Your task to perform on an android device: toggle pop-ups in chrome Image 0: 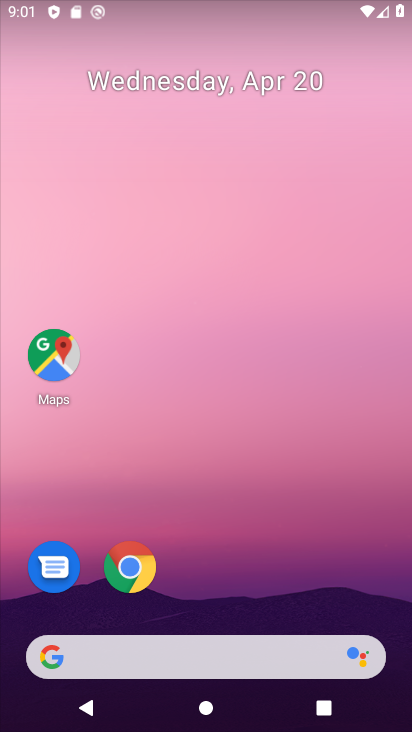
Step 0: click (124, 571)
Your task to perform on an android device: toggle pop-ups in chrome Image 1: 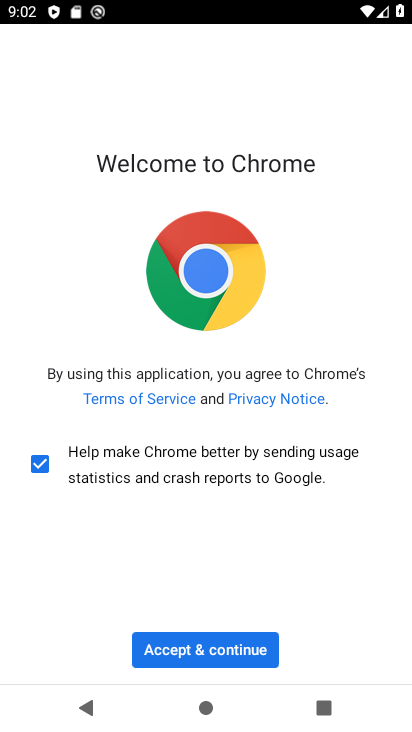
Step 1: click (242, 634)
Your task to perform on an android device: toggle pop-ups in chrome Image 2: 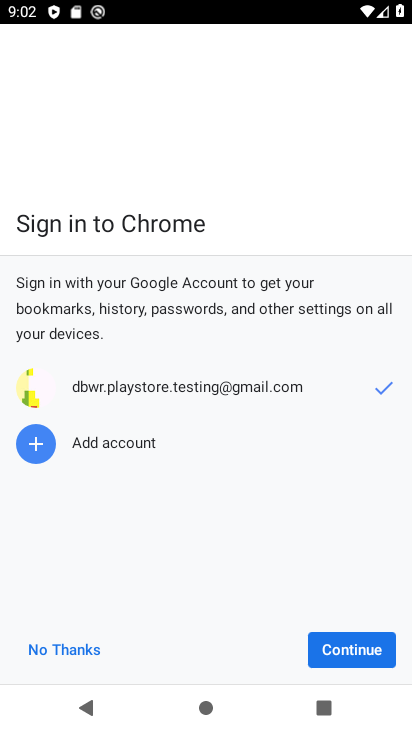
Step 2: click (376, 648)
Your task to perform on an android device: toggle pop-ups in chrome Image 3: 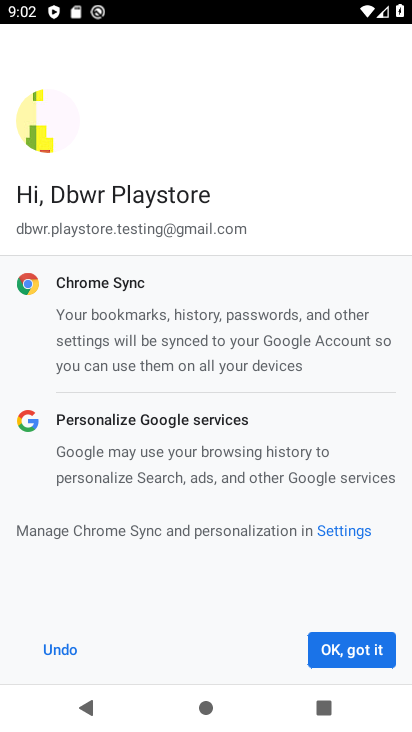
Step 3: click (369, 653)
Your task to perform on an android device: toggle pop-ups in chrome Image 4: 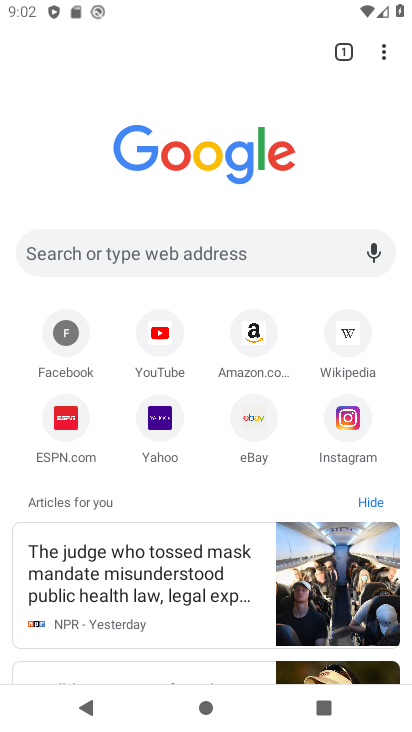
Step 4: drag from (388, 39) to (233, 427)
Your task to perform on an android device: toggle pop-ups in chrome Image 5: 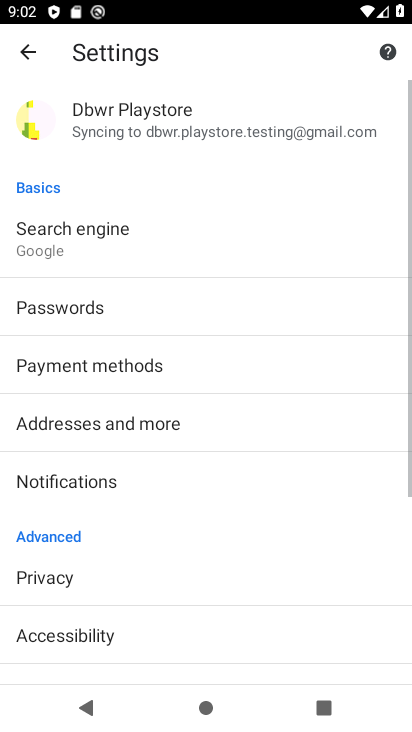
Step 5: drag from (101, 637) to (279, 42)
Your task to perform on an android device: toggle pop-ups in chrome Image 6: 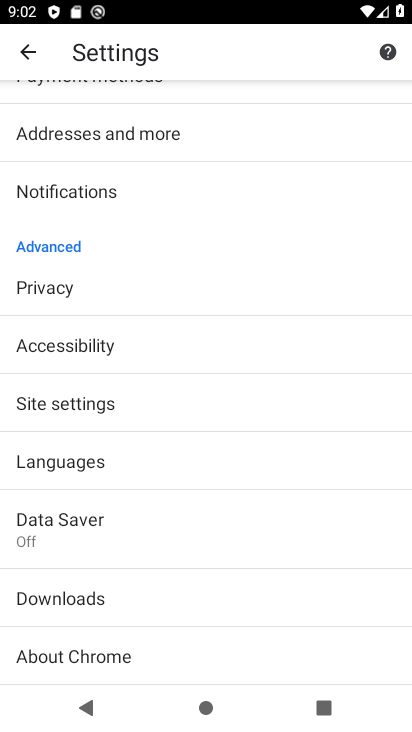
Step 6: click (79, 407)
Your task to perform on an android device: toggle pop-ups in chrome Image 7: 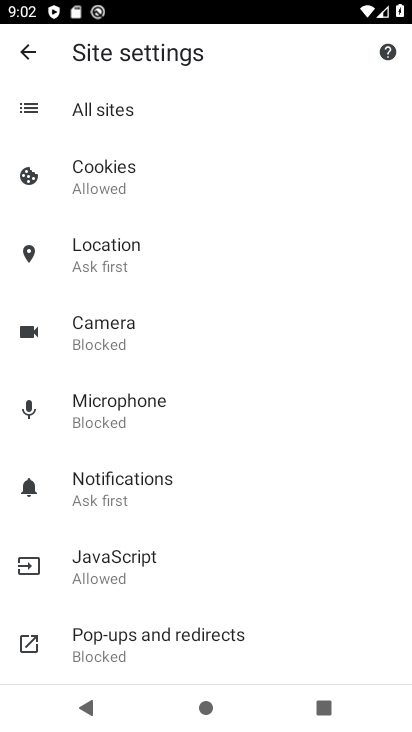
Step 7: click (186, 629)
Your task to perform on an android device: toggle pop-ups in chrome Image 8: 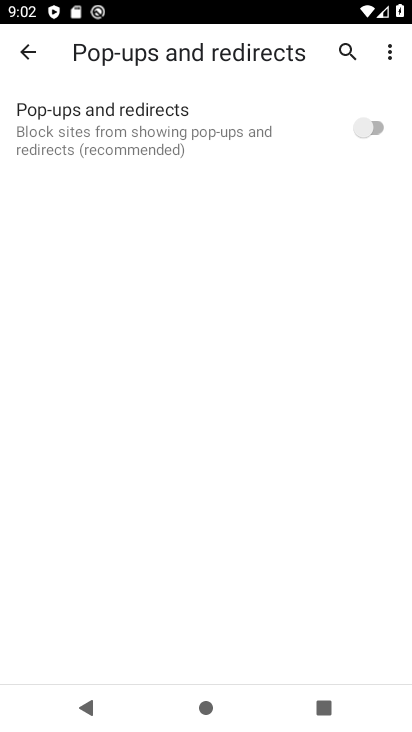
Step 8: click (362, 122)
Your task to perform on an android device: toggle pop-ups in chrome Image 9: 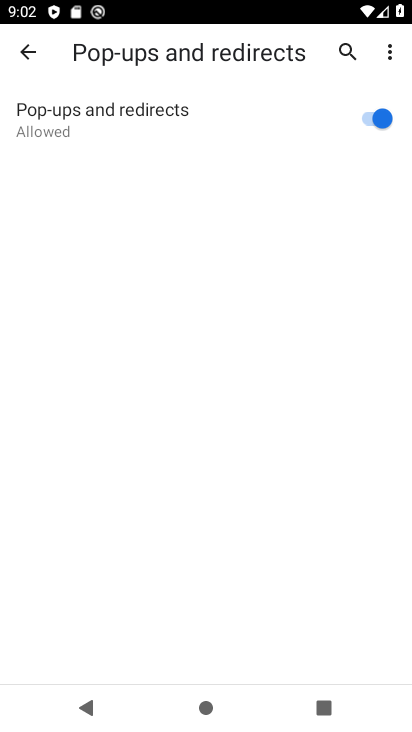
Step 9: task complete